Your task to perform on an android device: turn off location Image 0: 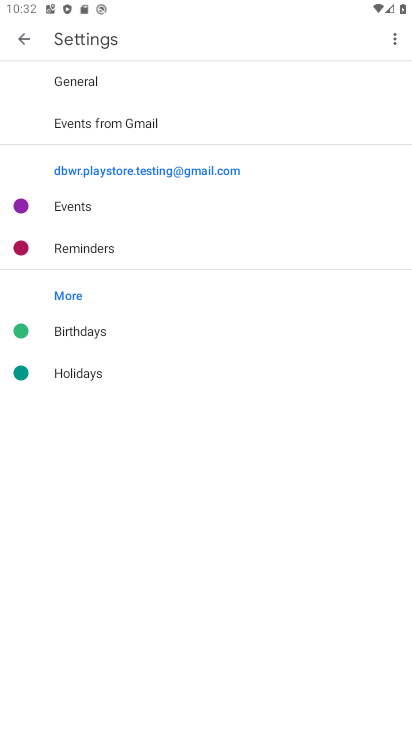
Step 0: drag from (229, 729) to (396, 586)
Your task to perform on an android device: turn off location Image 1: 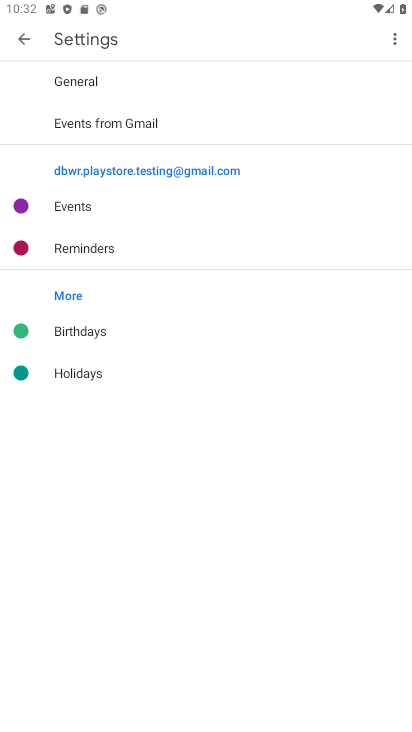
Step 1: press home button
Your task to perform on an android device: turn off location Image 2: 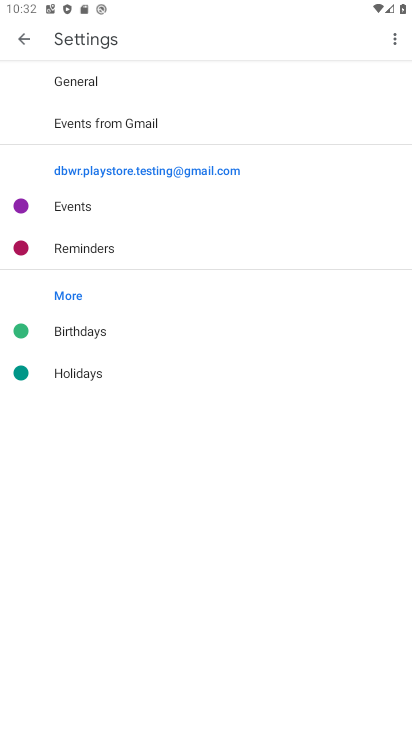
Step 2: drag from (396, 586) to (363, 529)
Your task to perform on an android device: turn off location Image 3: 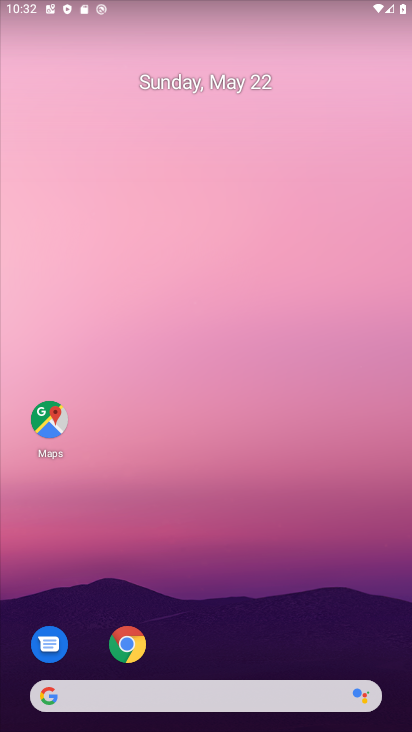
Step 3: drag from (210, 668) to (265, 258)
Your task to perform on an android device: turn off location Image 4: 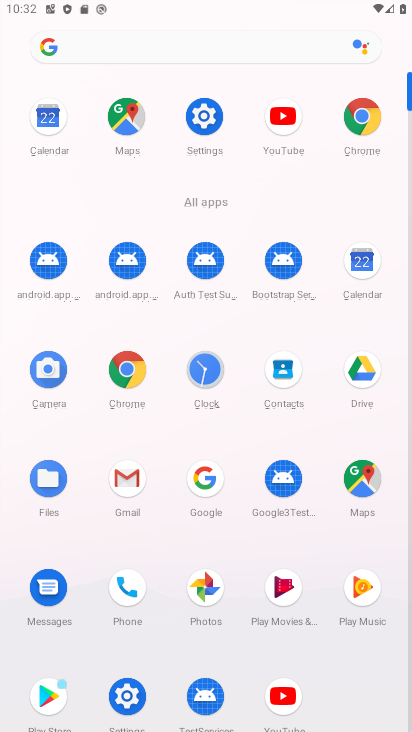
Step 4: click (197, 118)
Your task to perform on an android device: turn off location Image 5: 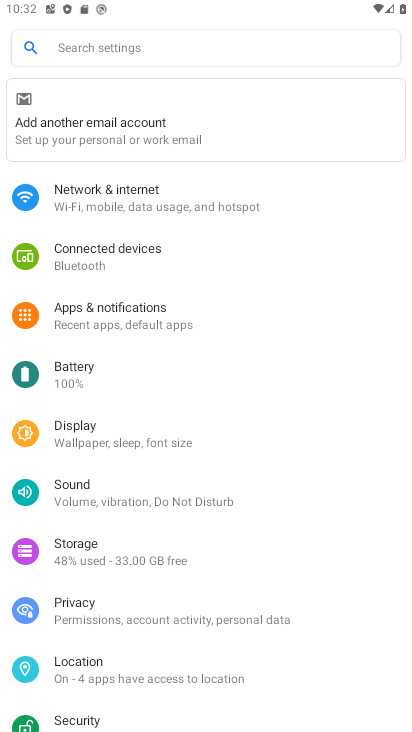
Step 5: click (121, 666)
Your task to perform on an android device: turn off location Image 6: 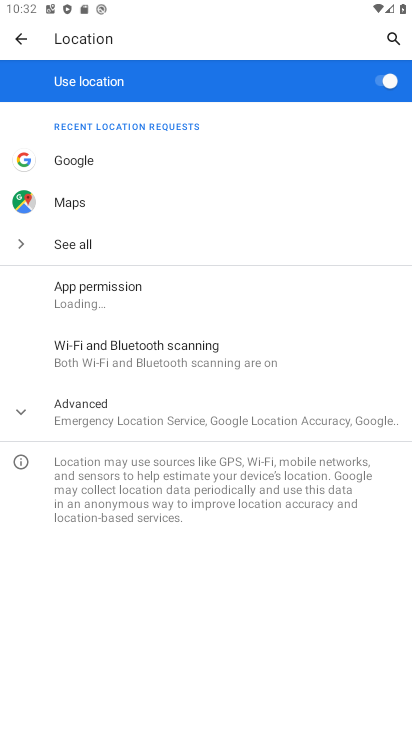
Step 6: click (378, 85)
Your task to perform on an android device: turn off location Image 7: 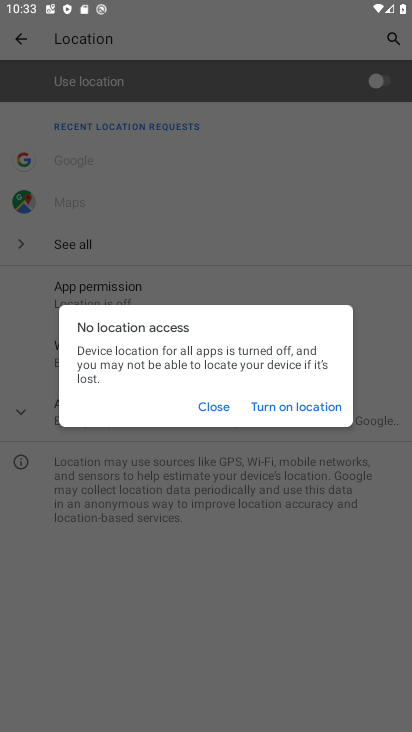
Step 7: click (205, 407)
Your task to perform on an android device: turn off location Image 8: 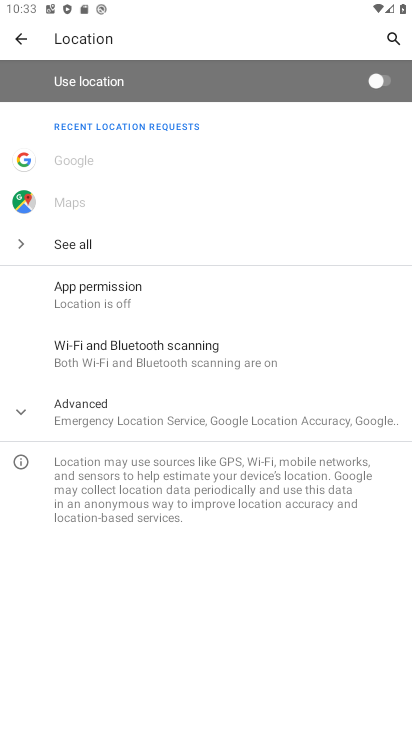
Step 8: task complete